Your task to perform on an android device: Open Google Chrome Image 0: 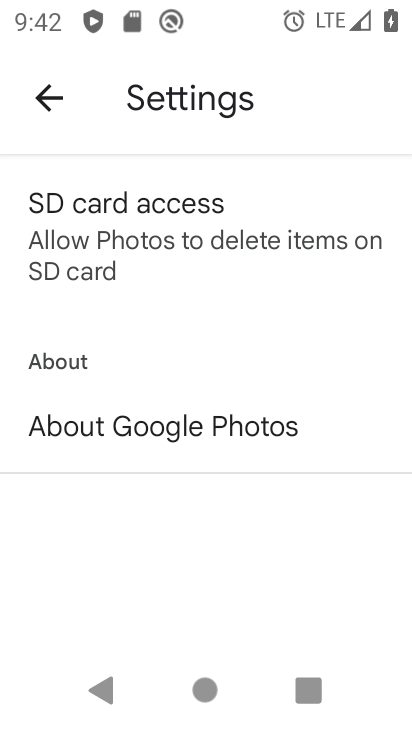
Step 0: drag from (167, 568) to (302, 135)
Your task to perform on an android device: Open Google Chrome Image 1: 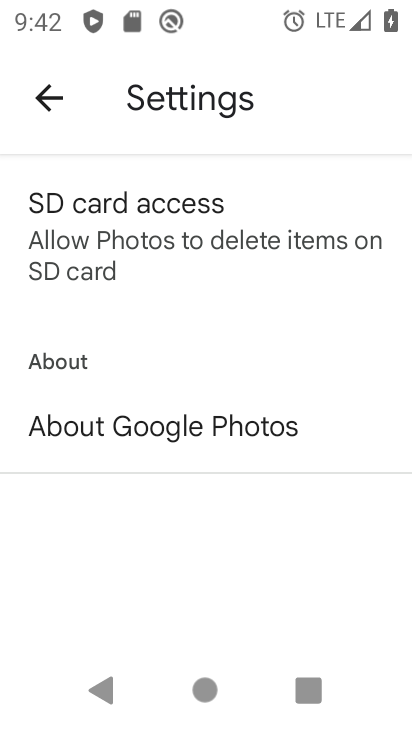
Step 1: drag from (248, 177) to (208, 581)
Your task to perform on an android device: Open Google Chrome Image 2: 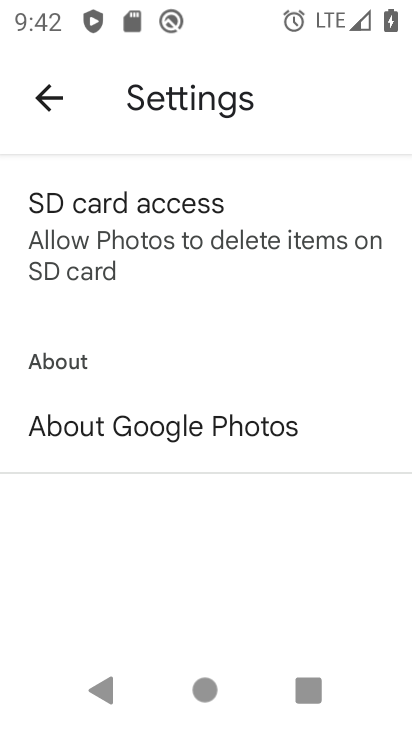
Step 2: drag from (247, 397) to (385, 726)
Your task to perform on an android device: Open Google Chrome Image 3: 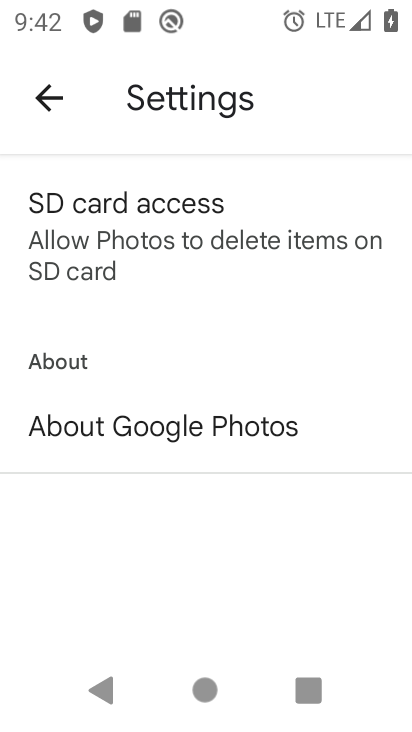
Step 3: press home button
Your task to perform on an android device: Open Google Chrome Image 4: 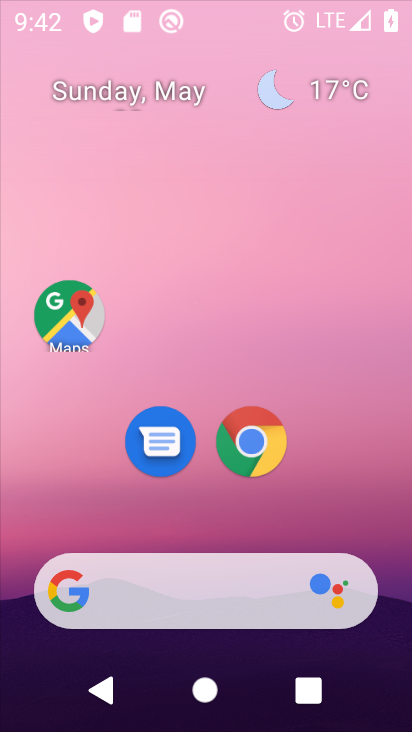
Step 4: drag from (200, 587) to (319, 16)
Your task to perform on an android device: Open Google Chrome Image 5: 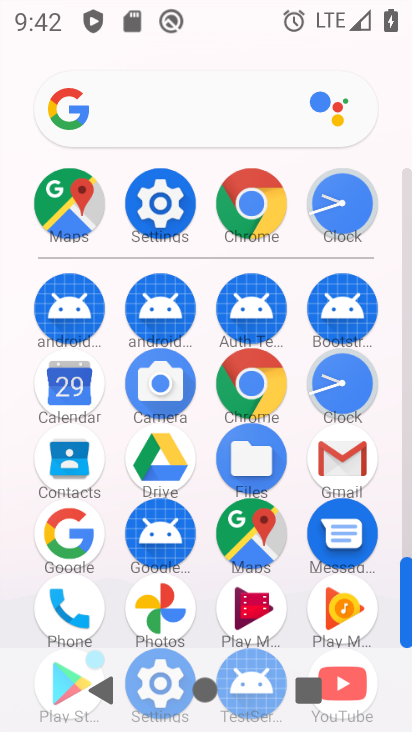
Step 5: click (246, 185)
Your task to perform on an android device: Open Google Chrome Image 6: 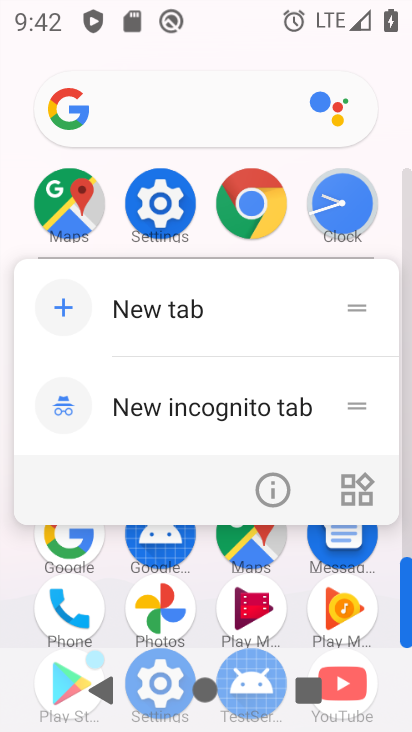
Step 6: click (272, 499)
Your task to perform on an android device: Open Google Chrome Image 7: 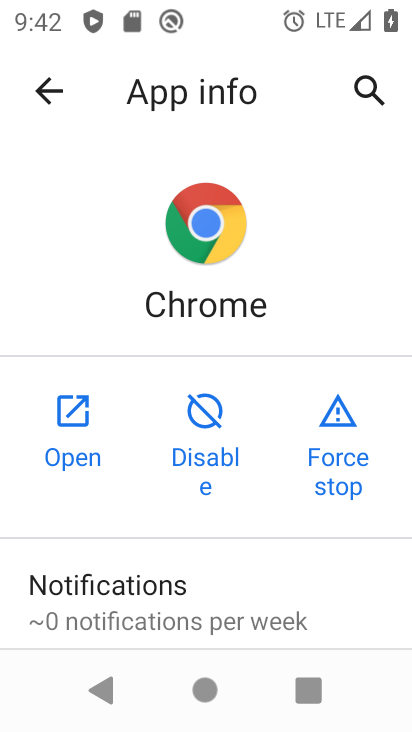
Step 7: click (73, 418)
Your task to perform on an android device: Open Google Chrome Image 8: 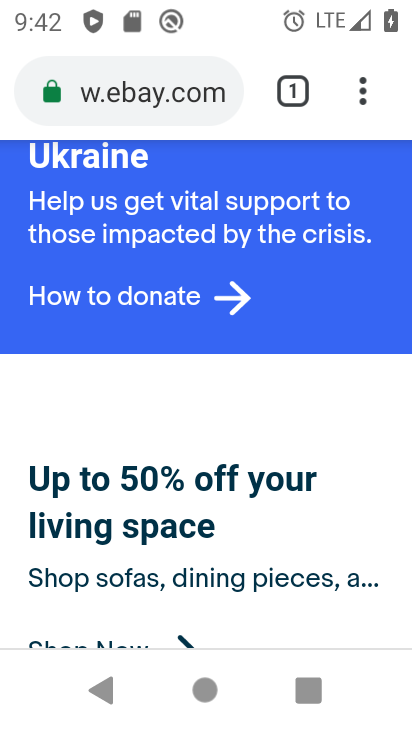
Step 8: task complete